Your task to perform on an android device: turn off translation in the chrome app Image 0: 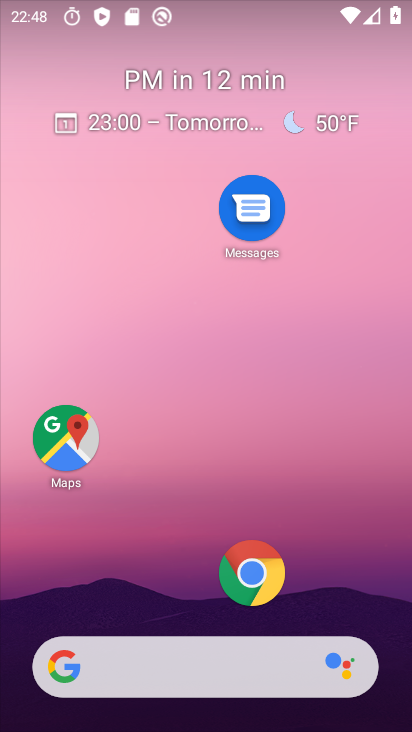
Step 0: click (252, 568)
Your task to perform on an android device: turn off translation in the chrome app Image 1: 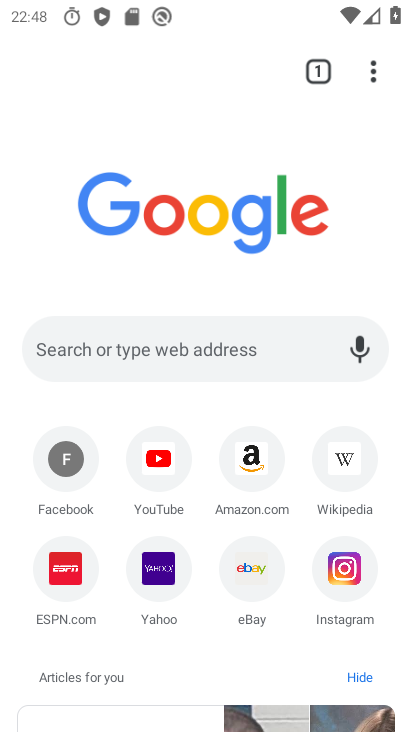
Step 1: click (359, 76)
Your task to perform on an android device: turn off translation in the chrome app Image 2: 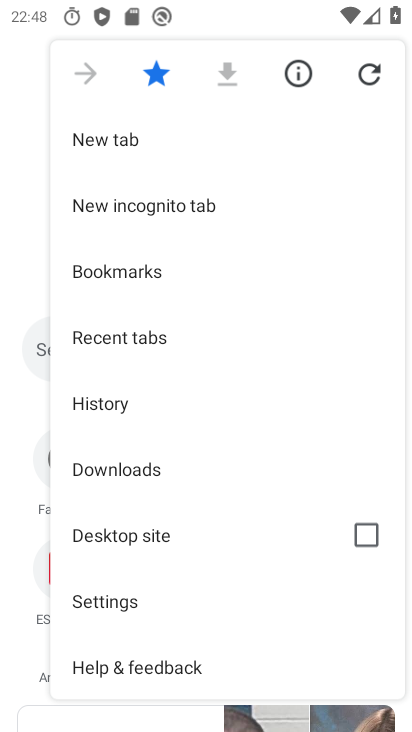
Step 2: click (166, 601)
Your task to perform on an android device: turn off translation in the chrome app Image 3: 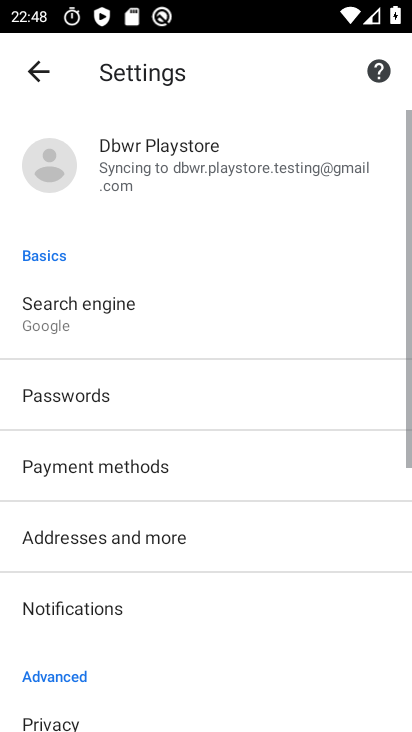
Step 3: drag from (232, 603) to (239, 96)
Your task to perform on an android device: turn off translation in the chrome app Image 4: 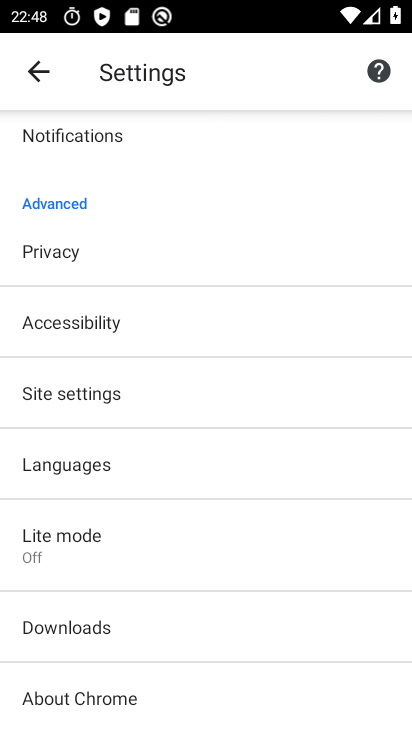
Step 4: click (99, 476)
Your task to perform on an android device: turn off translation in the chrome app Image 5: 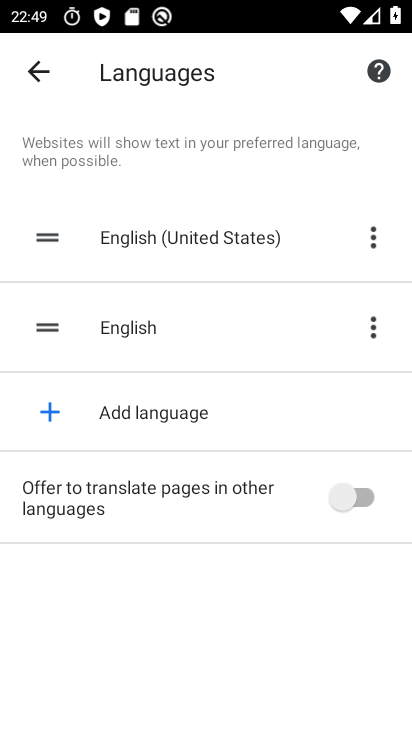
Step 5: task complete